Your task to perform on an android device: set an alarm Image 0: 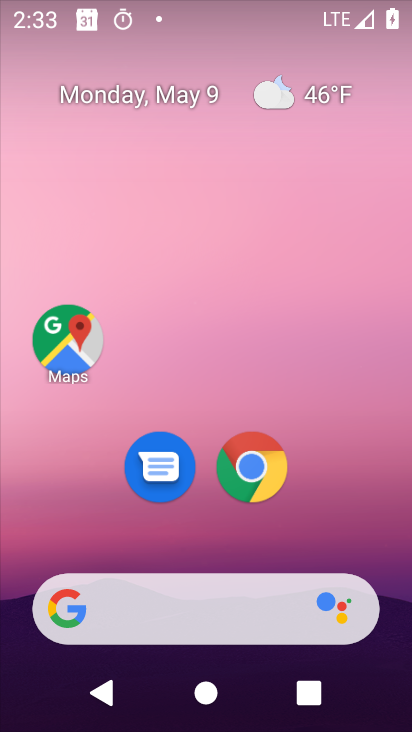
Step 0: drag from (354, 497) to (407, 78)
Your task to perform on an android device: set an alarm Image 1: 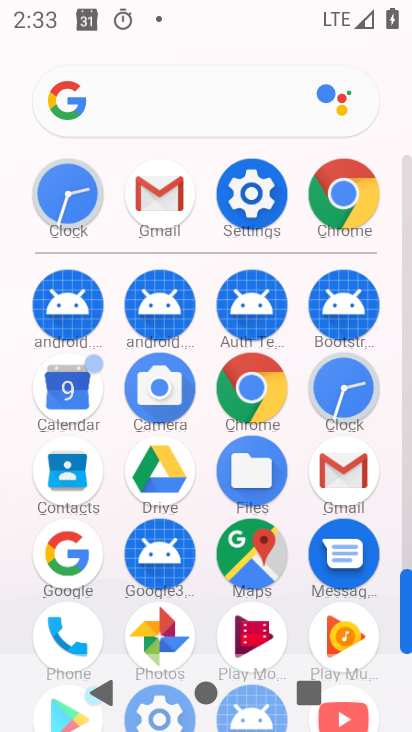
Step 1: click (344, 385)
Your task to perform on an android device: set an alarm Image 2: 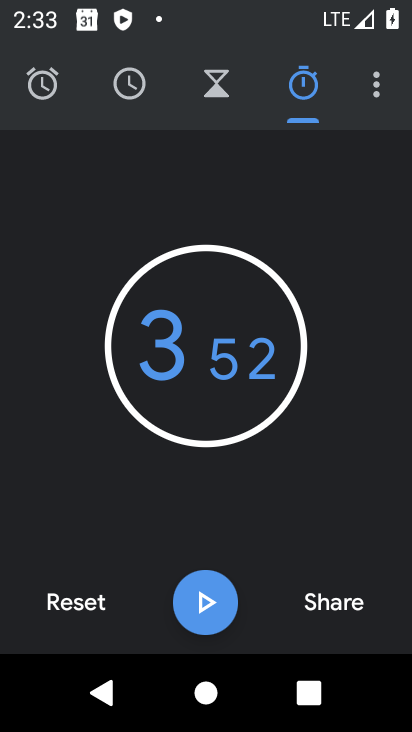
Step 2: click (36, 90)
Your task to perform on an android device: set an alarm Image 3: 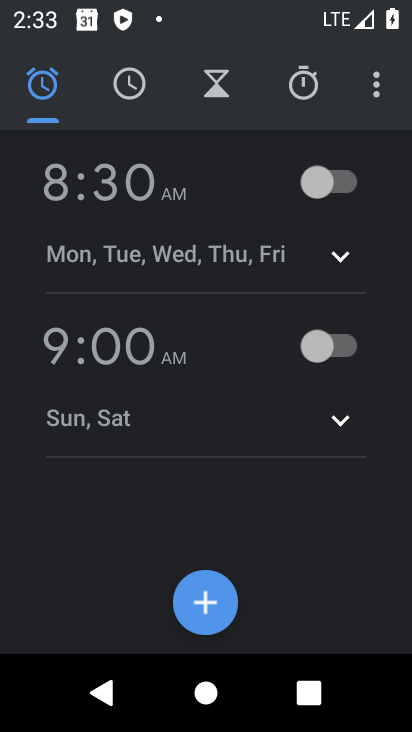
Step 3: click (215, 625)
Your task to perform on an android device: set an alarm Image 4: 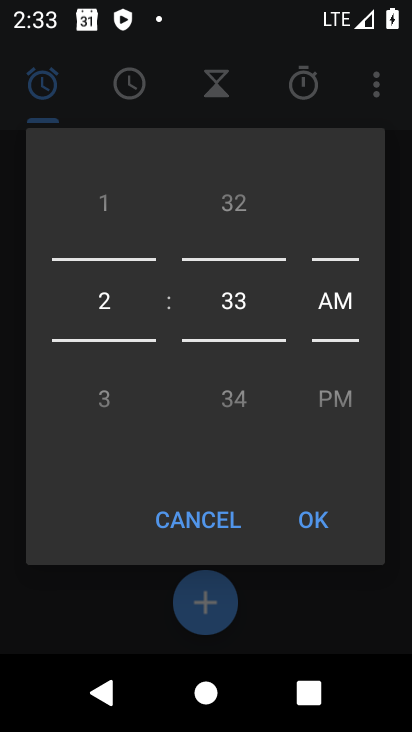
Step 4: click (327, 520)
Your task to perform on an android device: set an alarm Image 5: 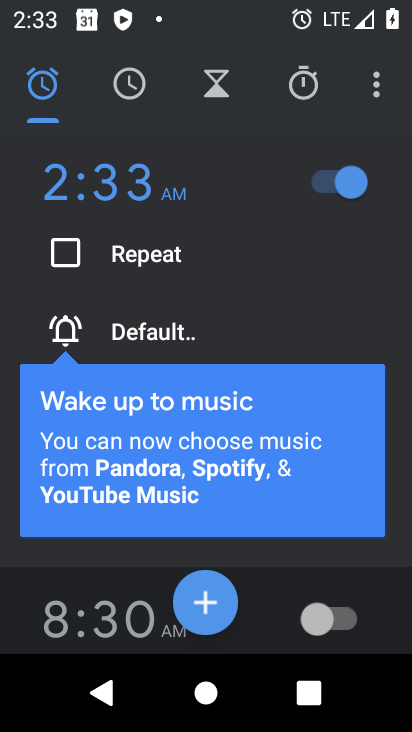
Step 5: task complete